Your task to perform on an android device: Go to notification settings Image 0: 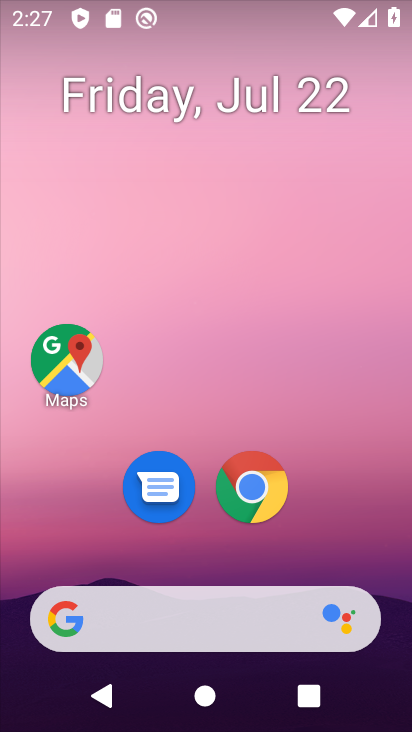
Step 0: drag from (69, 555) to (205, 44)
Your task to perform on an android device: Go to notification settings Image 1: 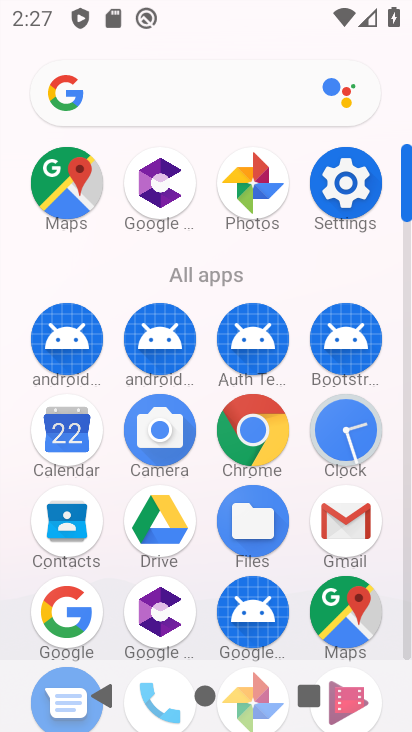
Step 1: click (338, 176)
Your task to perform on an android device: Go to notification settings Image 2: 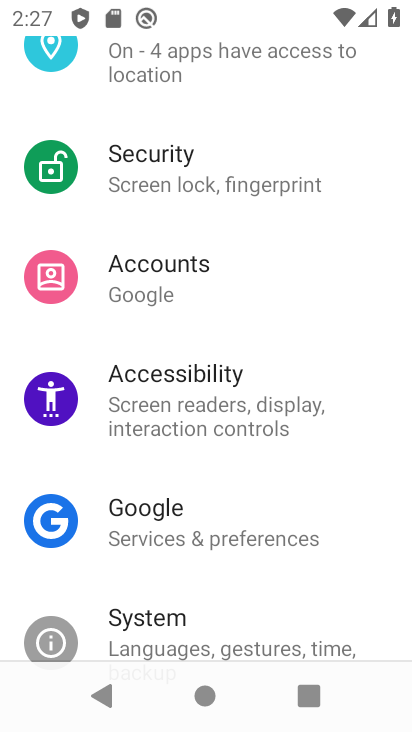
Step 2: drag from (292, 252) to (133, 730)
Your task to perform on an android device: Go to notification settings Image 3: 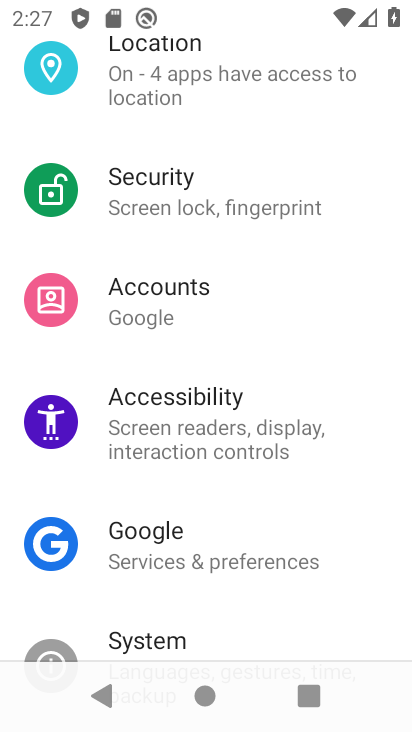
Step 3: drag from (216, 234) to (159, 635)
Your task to perform on an android device: Go to notification settings Image 4: 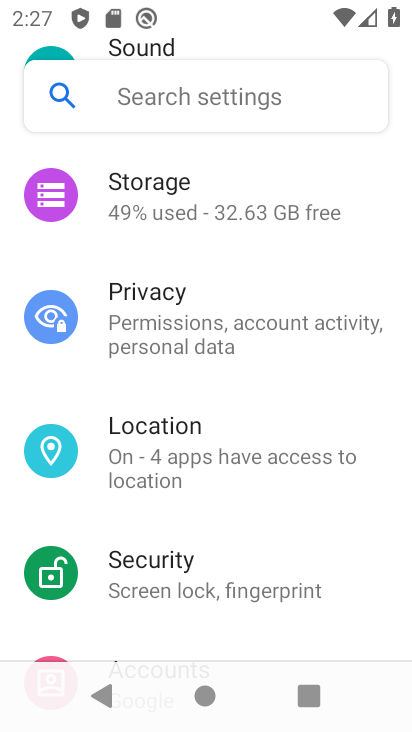
Step 4: drag from (195, 246) to (137, 659)
Your task to perform on an android device: Go to notification settings Image 5: 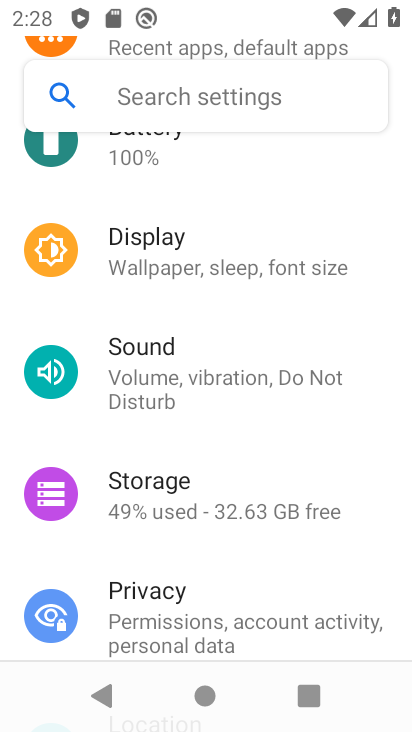
Step 5: drag from (252, 315) to (186, 729)
Your task to perform on an android device: Go to notification settings Image 6: 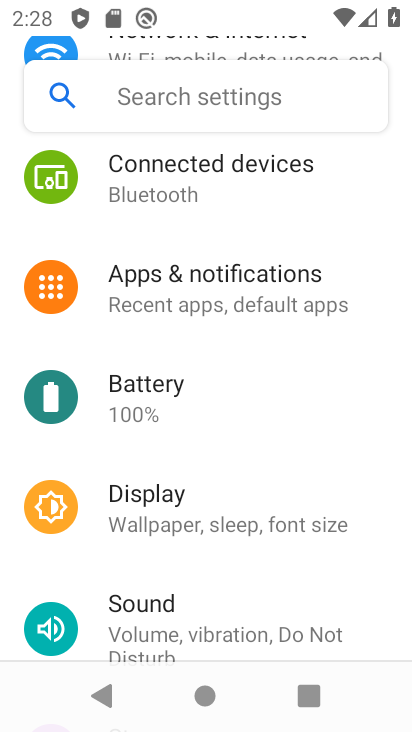
Step 6: click (206, 292)
Your task to perform on an android device: Go to notification settings Image 7: 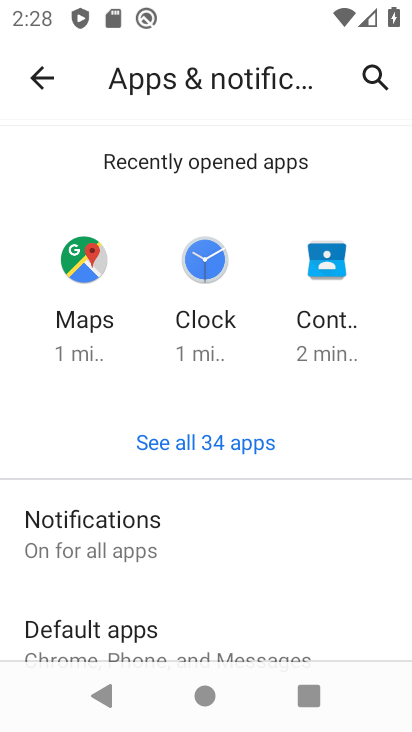
Step 7: task complete